Your task to perform on an android device: toggle javascript in the chrome app Image 0: 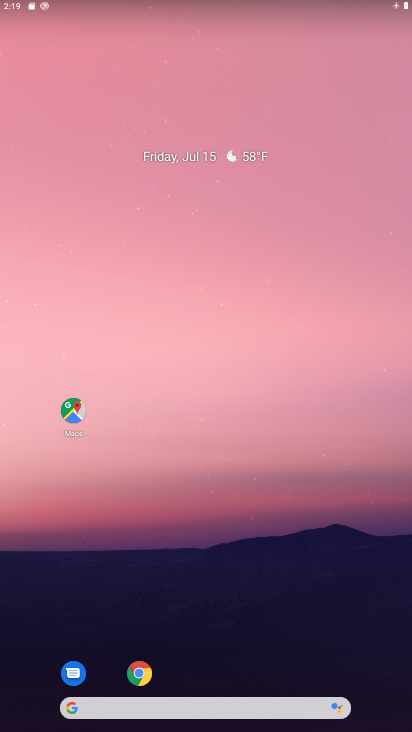
Step 0: click (141, 670)
Your task to perform on an android device: toggle javascript in the chrome app Image 1: 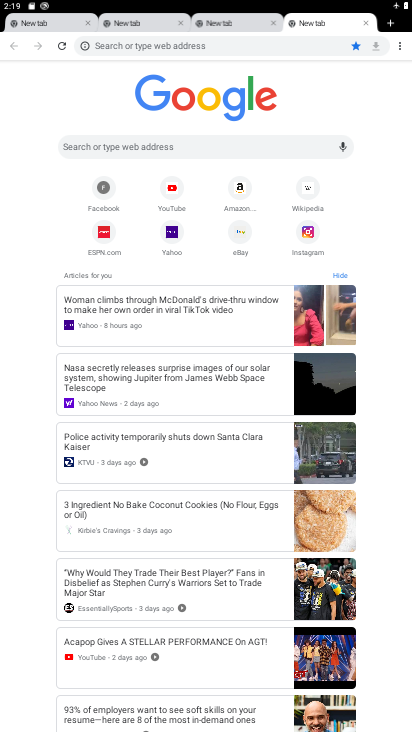
Step 1: click (398, 44)
Your task to perform on an android device: toggle javascript in the chrome app Image 2: 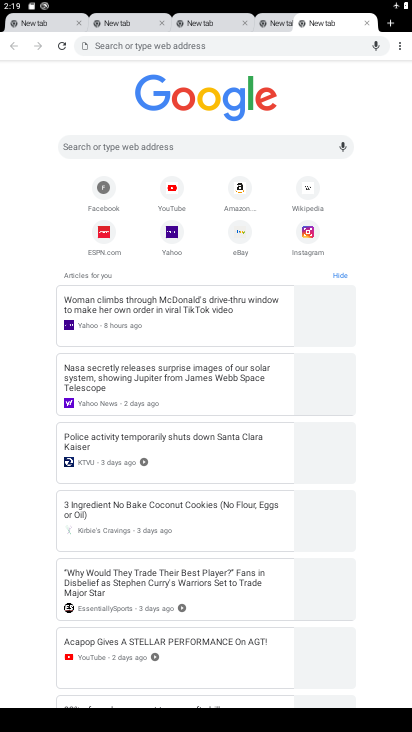
Step 2: click (398, 44)
Your task to perform on an android device: toggle javascript in the chrome app Image 3: 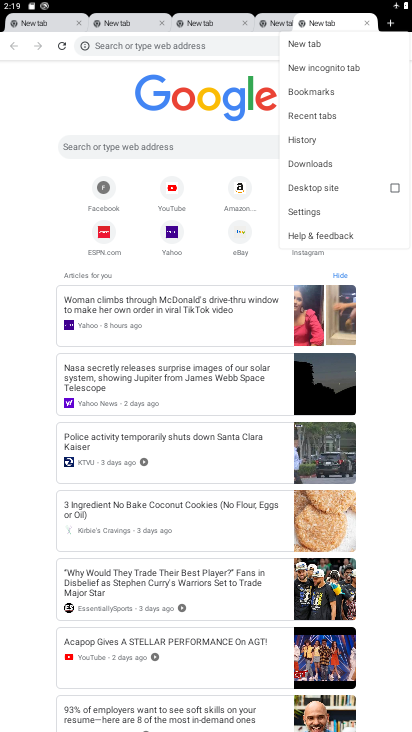
Step 3: click (398, 44)
Your task to perform on an android device: toggle javascript in the chrome app Image 4: 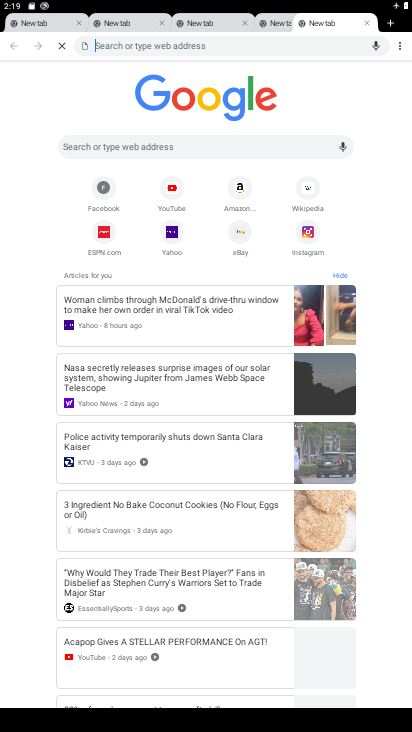
Step 4: click (398, 44)
Your task to perform on an android device: toggle javascript in the chrome app Image 5: 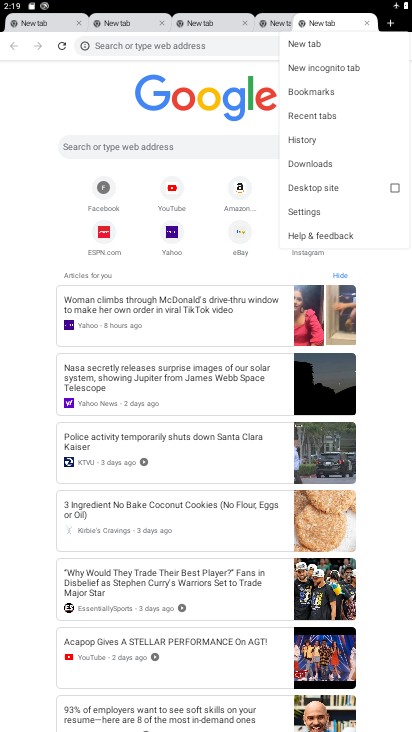
Step 5: click (301, 212)
Your task to perform on an android device: toggle javascript in the chrome app Image 6: 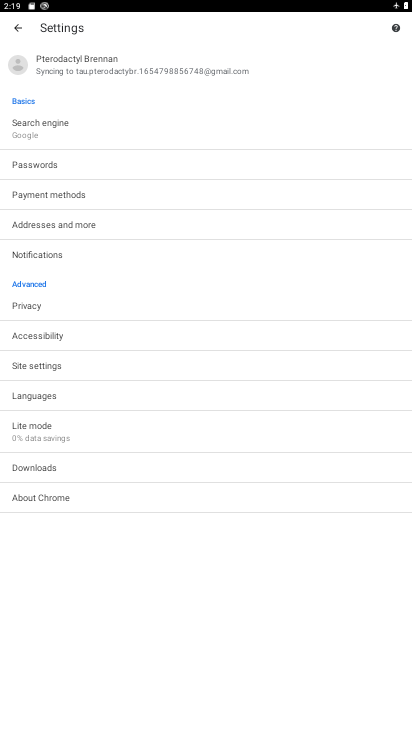
Step 6: click (34, 366)
Your task to perform on an android device: toggle javascript in the chrome app Image 7: 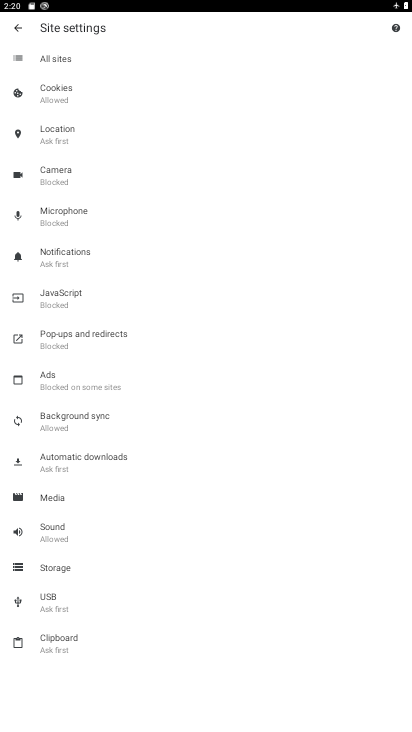
Step 7: click (54, 289)
Your task to perform on an android device: toggle javascript in the chrome app Image 8: 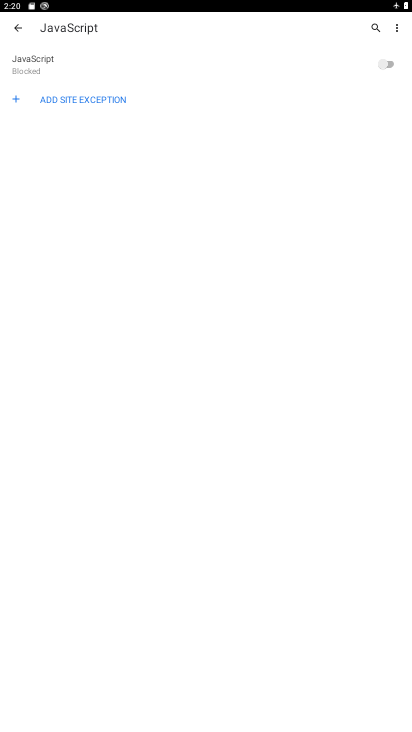
Step 8: click (380, 62)
Your task to perform on an android device: toggle javascript in the chrome app Image 9: 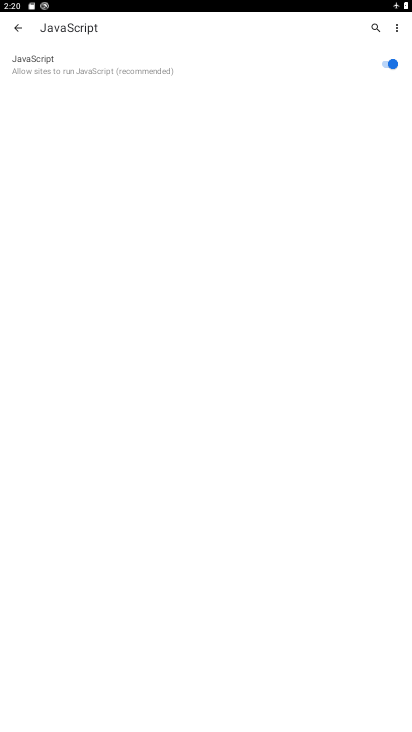
Step 9: task complete